Your task to perform on an android device: Go to wifi settings Image 0: 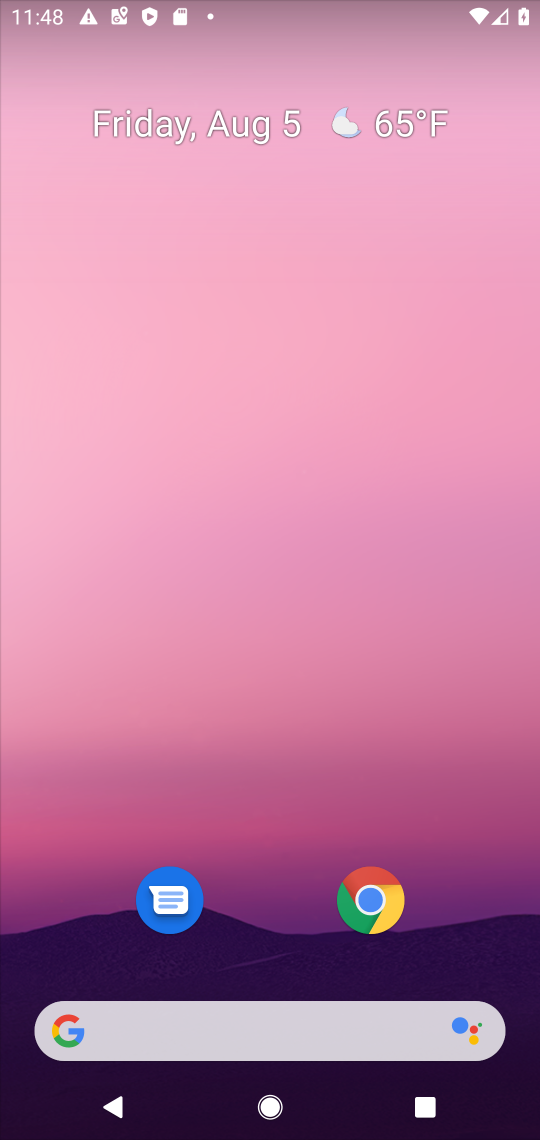
Step 0: drag from (291, 903) to (286, 182)
Your task to perform on an android device: Go to wifi settings Image 1: 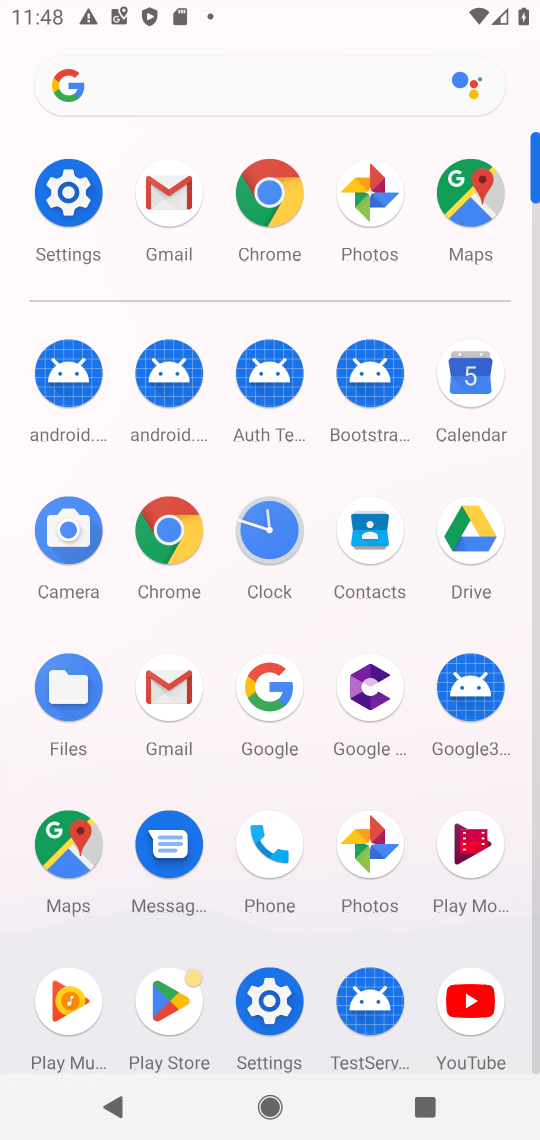
Step 1: click (68, 190)
Your task to perform on an android device: Go to wifi settings Image 2: 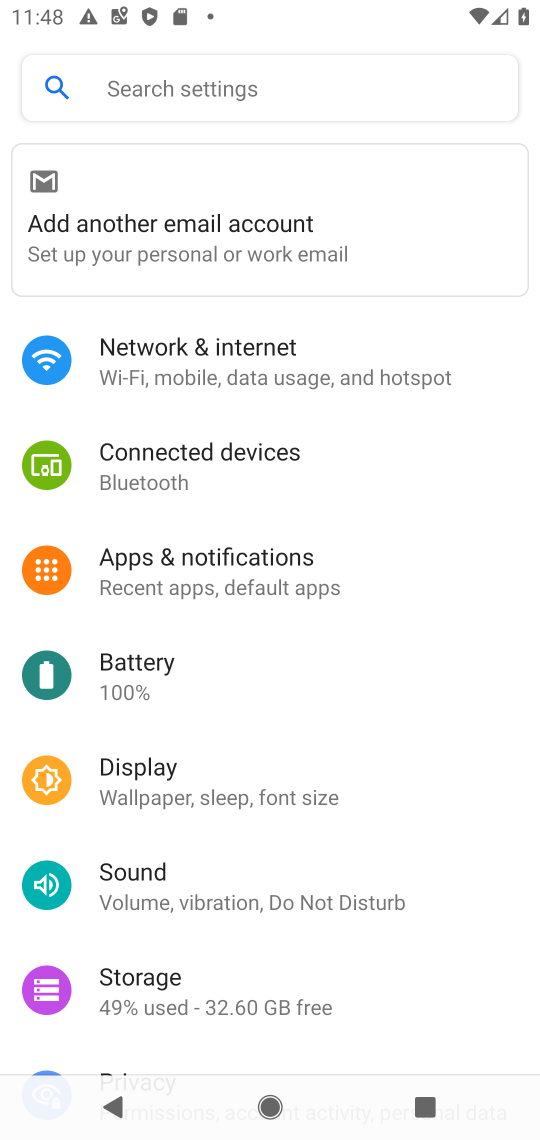
Step 2: click (215, 349)
Your task to perform on an android device: Go to wifi settings Image 3: 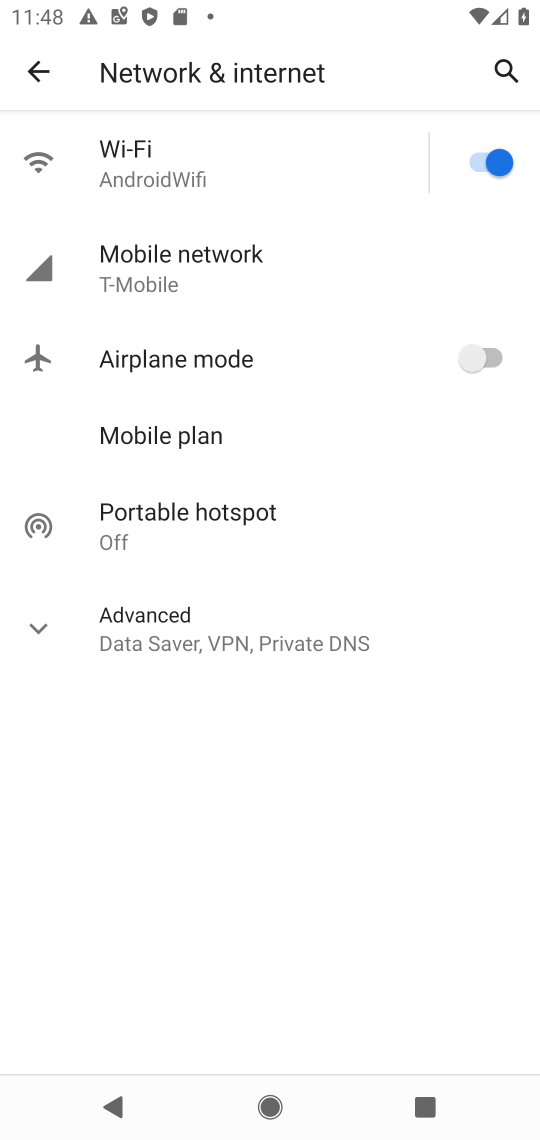
Step 3: click (148, 169)
Your task to perform on an android device: Go to wifi settings Image 4: 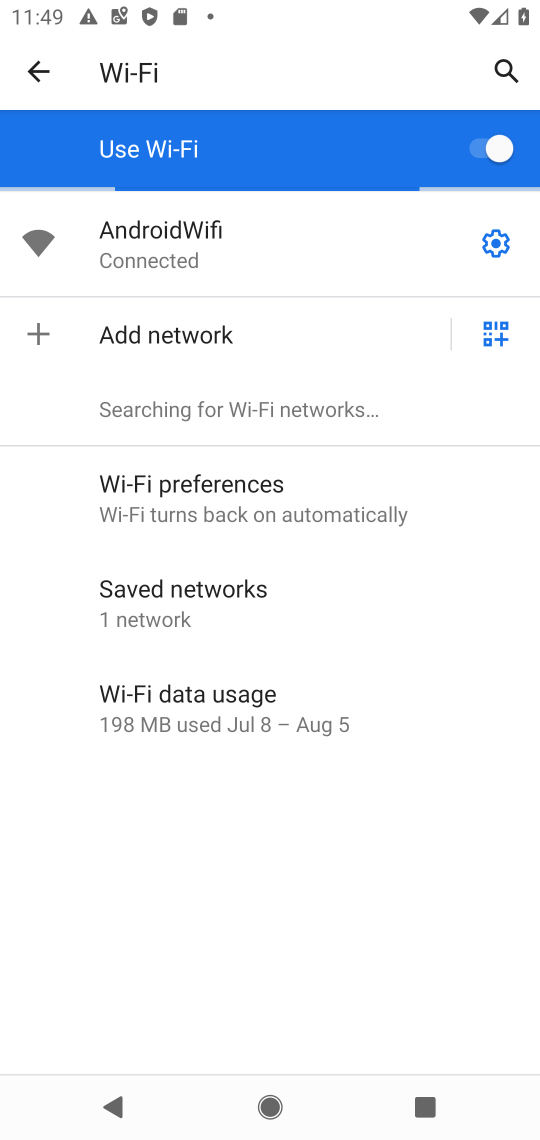
Step 4: task complete